Your task to perform on an android device: Open network settings Image 0: 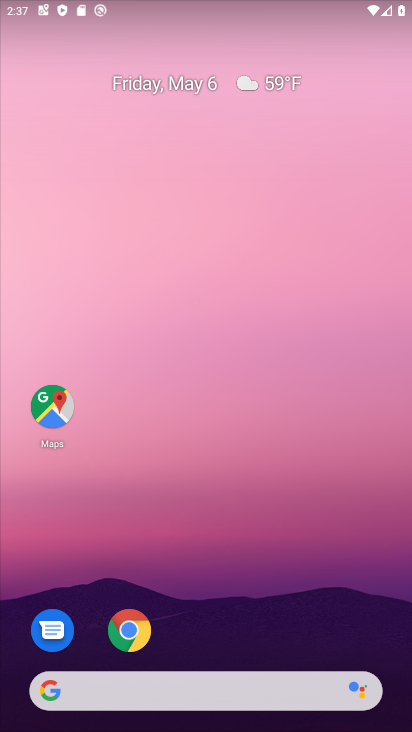
Step 0: drag from (192, 616) to (197, 208)
Your task to perform on an android device: Open network settings Image 1: 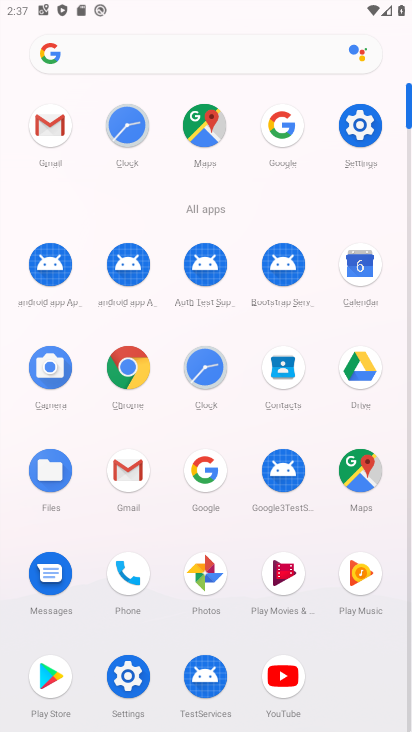
Step 1: click (371, 131)
Your task to perform on an android device: Open network settings Image 2: 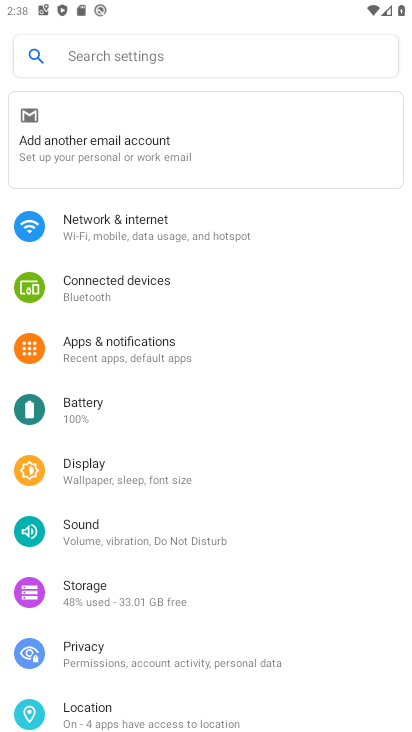
Step 2: click (189, 244)
Your task to perform on an android device: Open network settings Image 3: 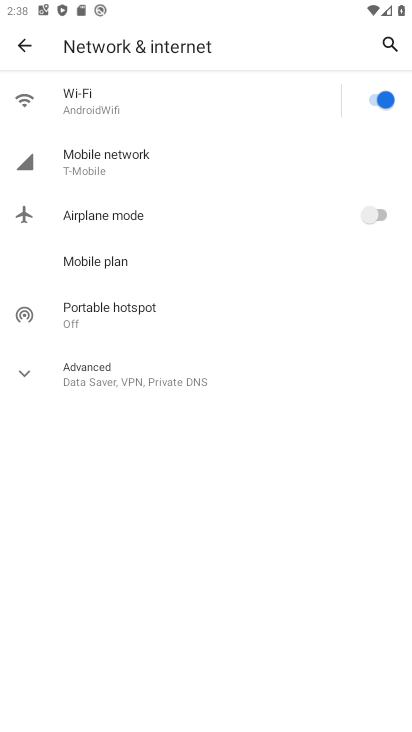
Step 3: click (137, 163)
Your task to perform on an android device: Open network settings Image 4: 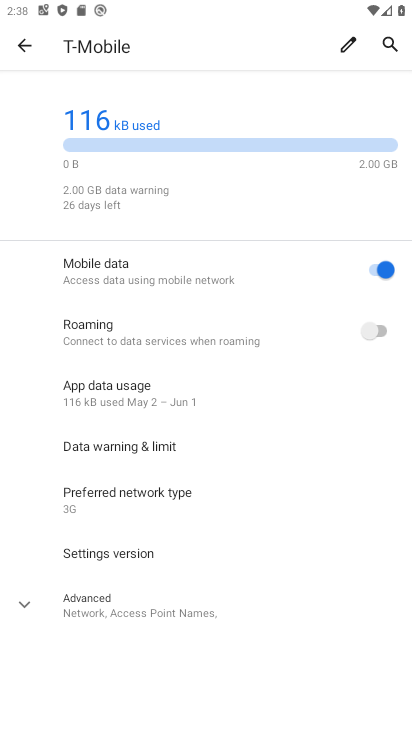
Step 4: task complete